Your task to perform on an android device: Go to Android settings Image 0: 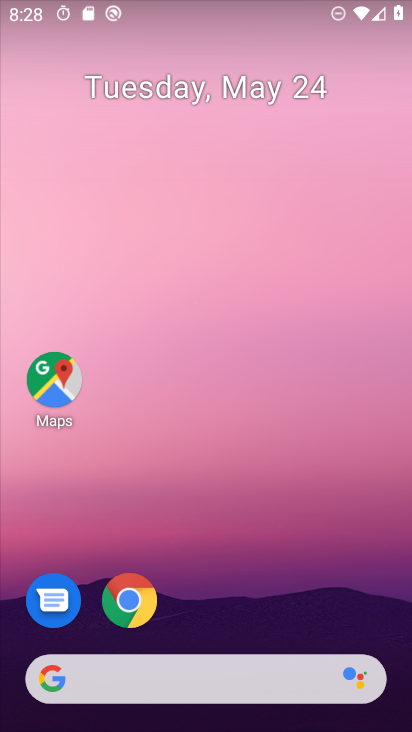
Step 0: drag from (211, 636) to (247, 20)
Your task to perform on an android device: Go to Android settings Image 1: 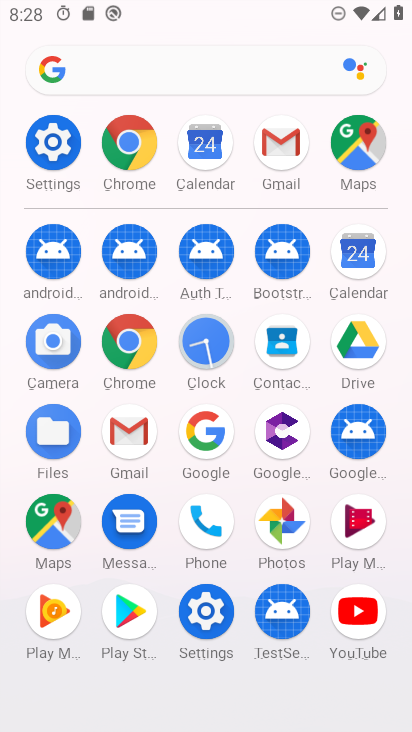
Step 1: click (50, 143)
Your task to perform on an android device: Go to Android settings Image 2: 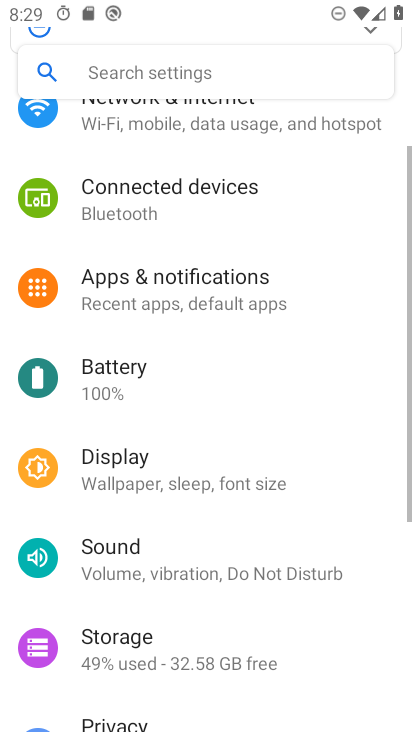
Step 2: drag from (186, 629) to (240, 67)
Your task to perform on an android device: Go to Android settings Image 3: 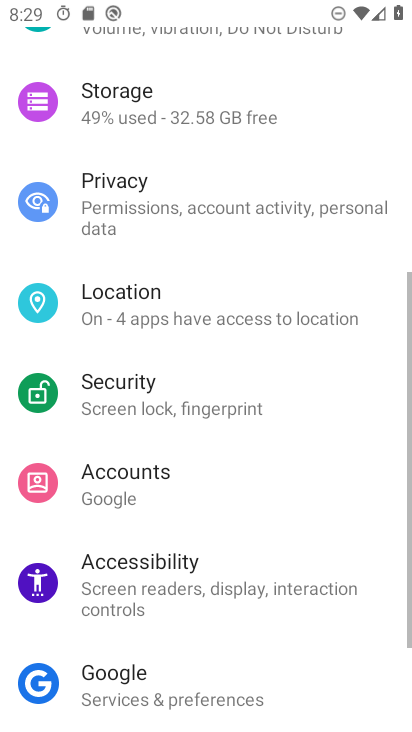
Step 3: drag from (174, 618) to (242, 18)
Your task to perform on an android device: Go to Android settings Image 4: 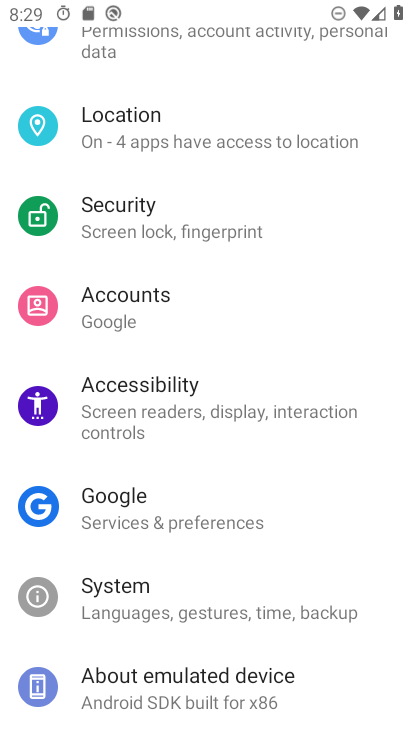
Step 4: click (162, 698)
Your task to perform on an android device: Go to Android settings Image 5: 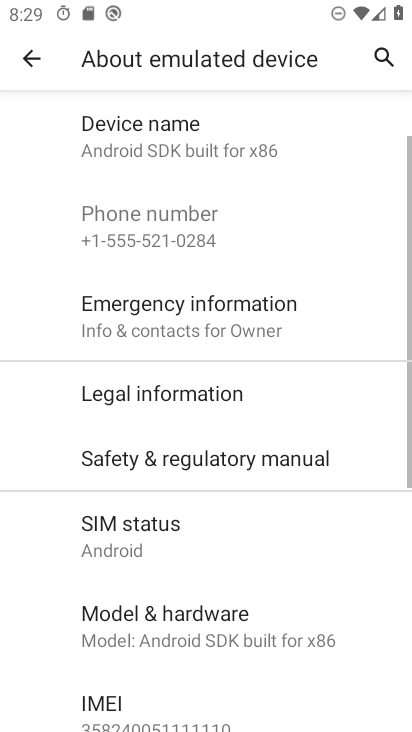
Step 5: task complete